Your task to perform on an android device: Open Chrome and go to settings Image 0: 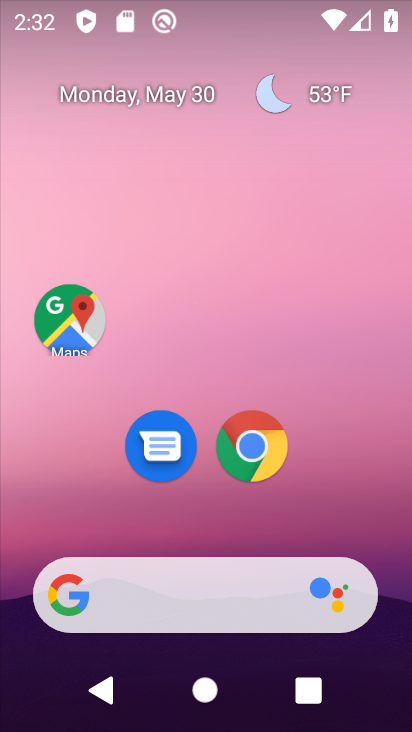
Step 0: click (254, 446)
Your task to perform on an android device: Open Chrome and go to settings Image 1: 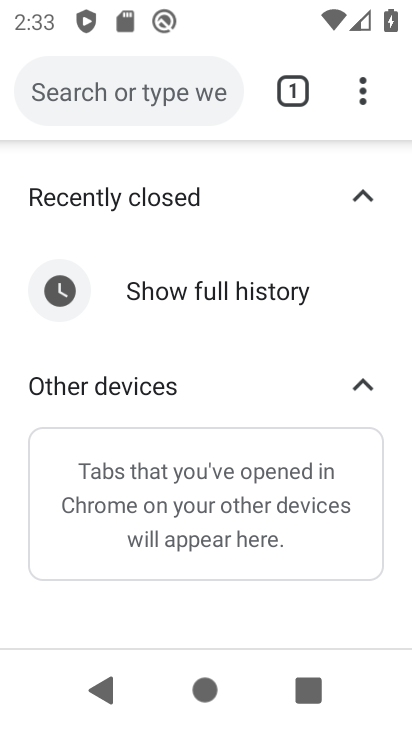
Step 1: click (363, 93)
Your task to perform on an android device: Open Chrome and go to settings Image 2: 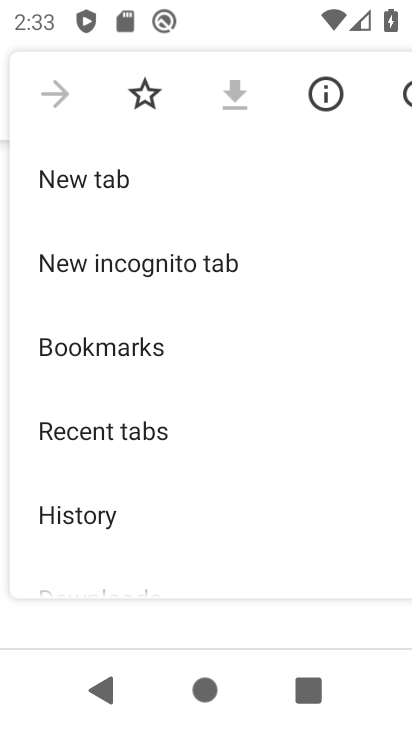
Step 2: drag from (157, 514) to (212, 417)
Your task to perform on an android device: Open Chrome and go to settings Image 3: 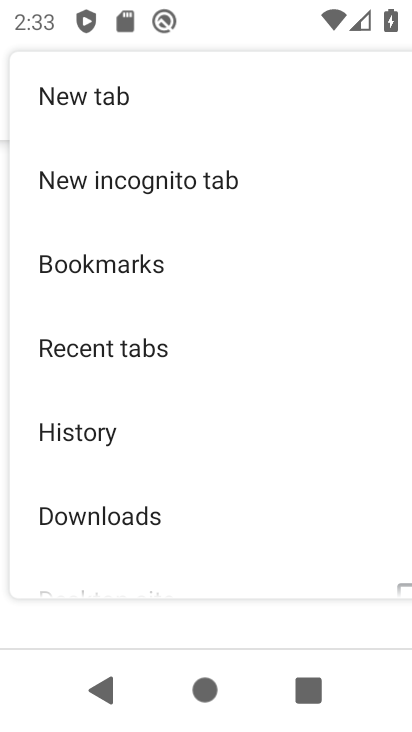
Step 3: drag from (170, 481) to (251, 387)
Your task to perform on an android device: Open Chrome and go to settings Image 4: 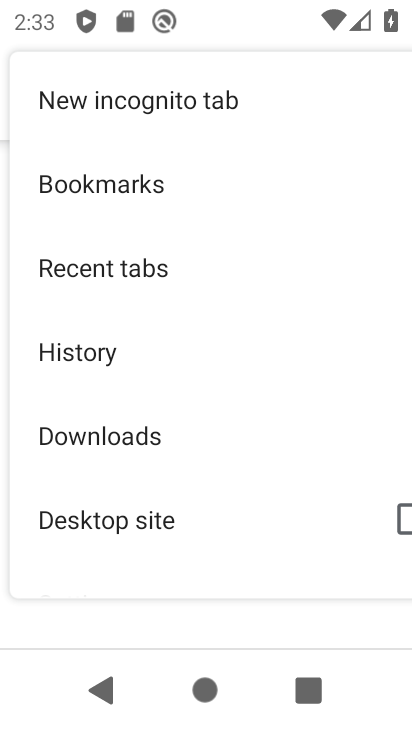
Step 4: drag from (114, 500) to (190, 395)
Your task to perform on an android device: Open Chrome and go to settings Image 5: 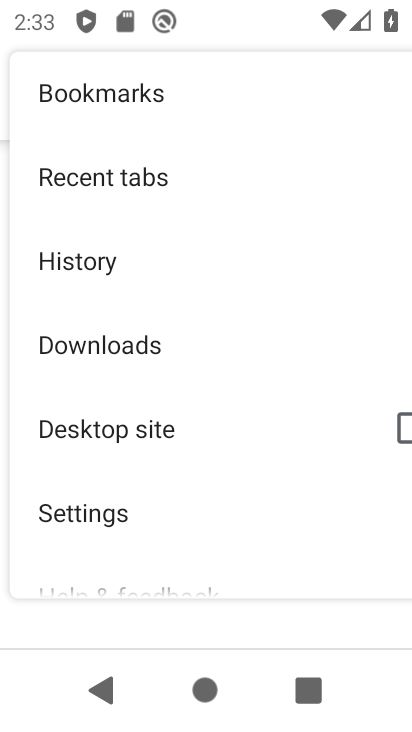
Step 5: click (113, 519)
Your task to perform on an android device: Open Chrome and go to settings Image 6: 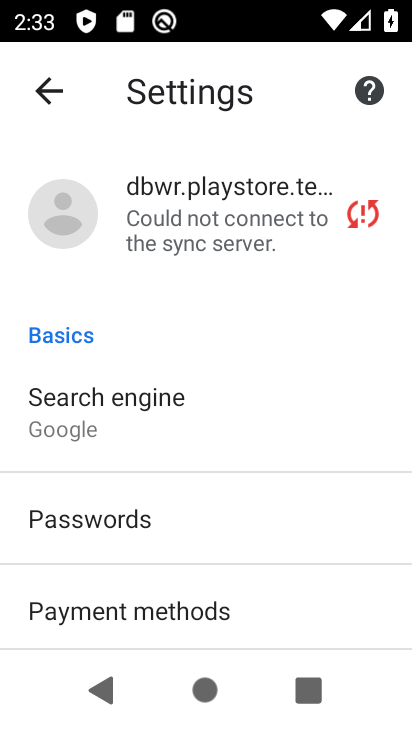
Step 6: task complete